Your task to perform on an android device: Go to Android settings Image 0: 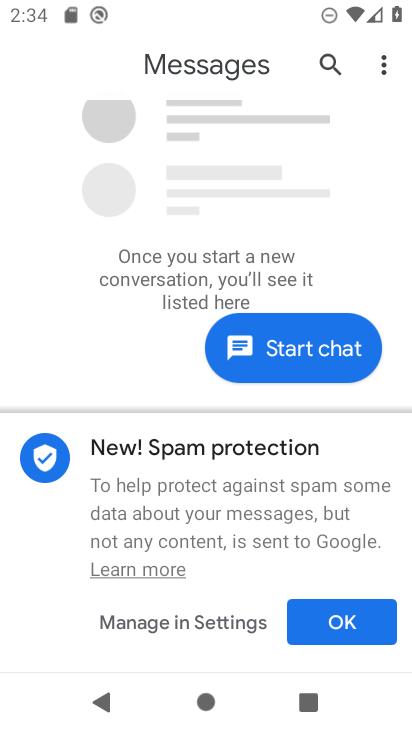
Step 0: click (325, 623)
Your task to perform on an android device: Go to Android settings Image 1: 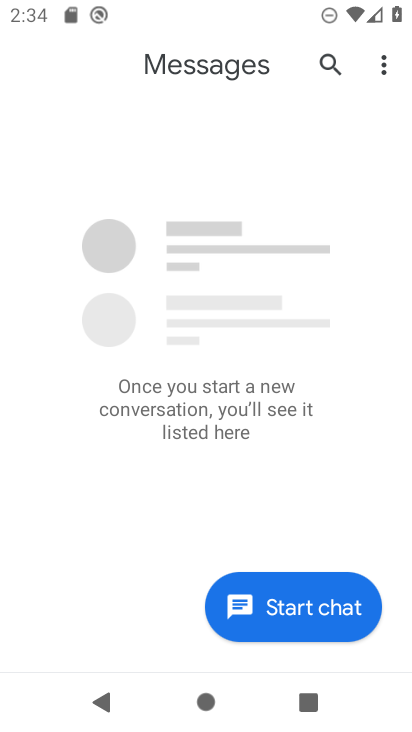
Step 1: press home button
Your task to perform on an android device: Go to Android settings Image 2: 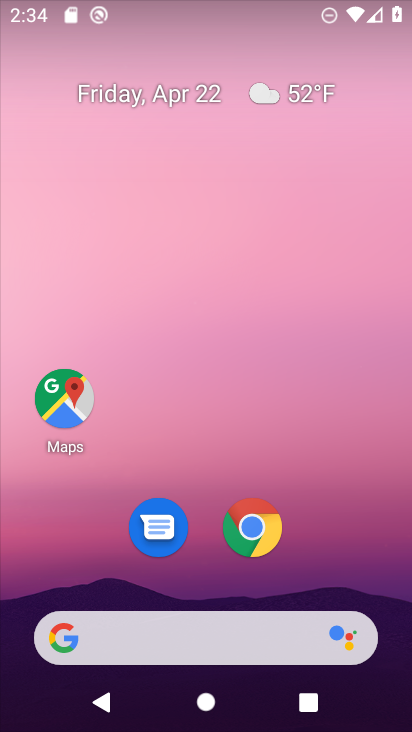
Step 2: drag from (317, 560) to (266, 98)
Your task to perform on an android device: Go to Android settings Image 3: 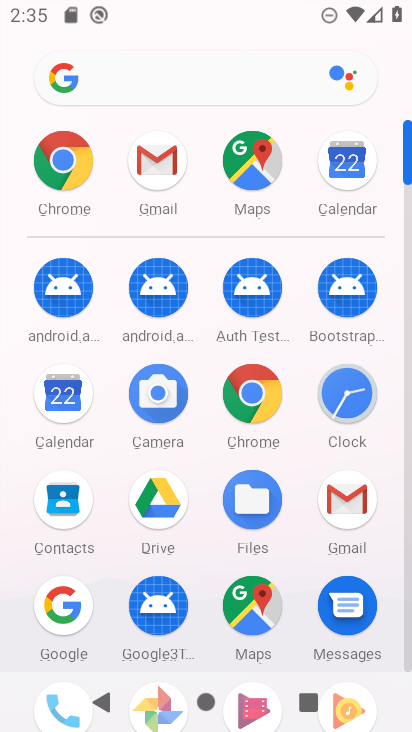
Step 3: click (406, 413)
Your task to perform on an android device: Go to Android settings Image 4: 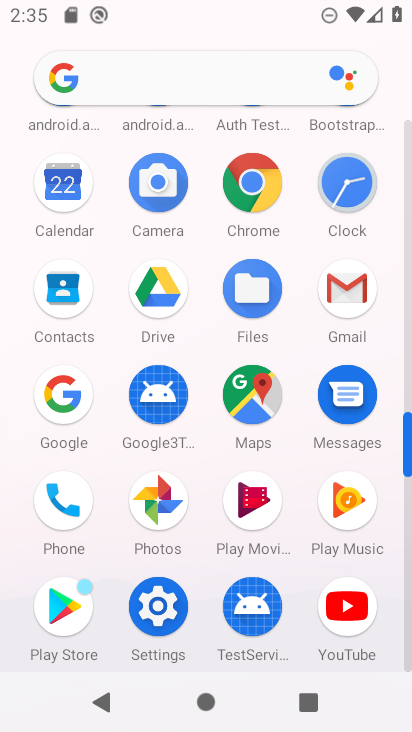
Step 4: click (144, 599)
Your task to perform on an android device: Go to Android settings Image 5: 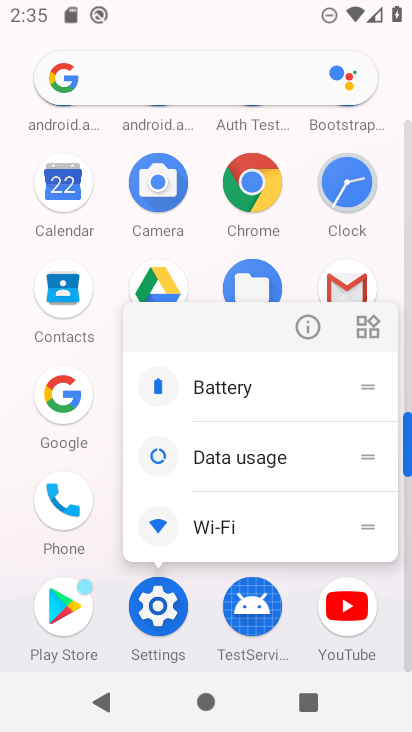
Step 5: click (152, 604)
Your task to perform on an android device: Go to Android settings Image 6: 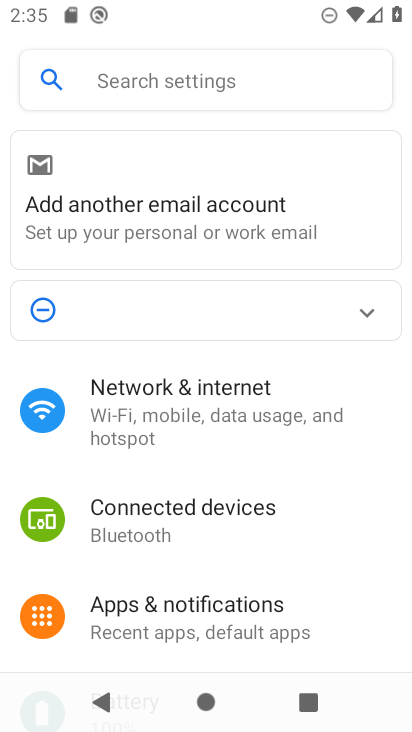
Step 6: drag from (346, 559) to (287, 426)
Your task to perform on an android device: Go to Android settings Image 7: 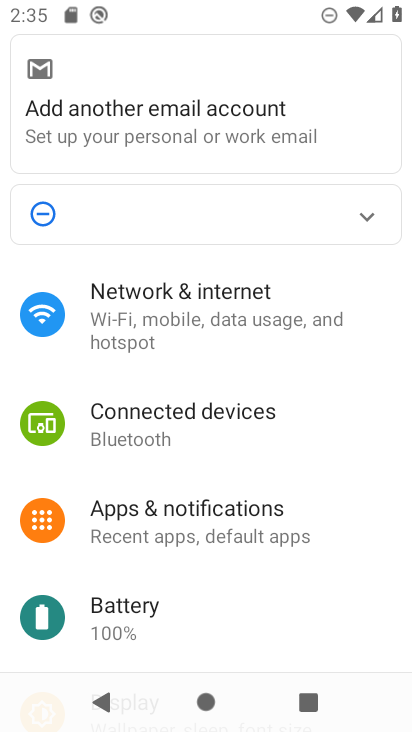
Step 7: drag from (247, 623) to (312, 108)
Your task to perform on an android device: Go to Android settings Image 8: 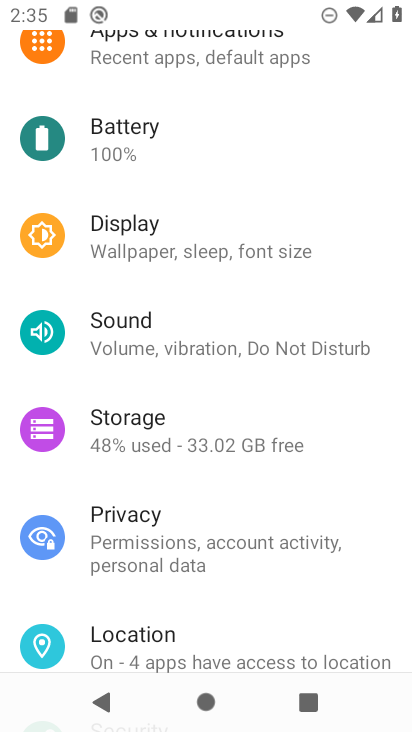
Step 8: drag from (264, 458) to (242, 332)
Your task to perform on an android device: Go to Android settings Image 9: 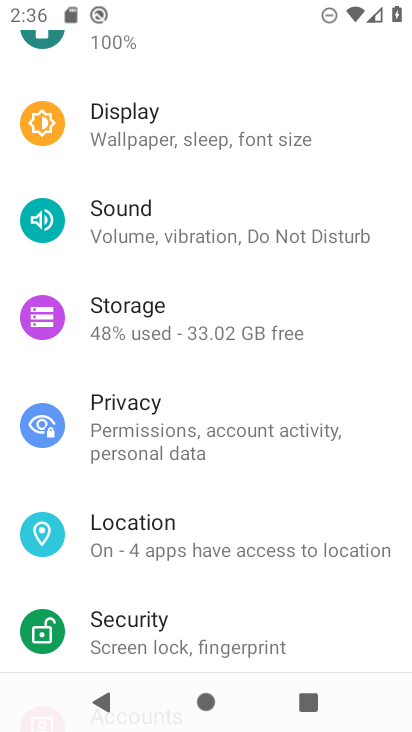
Step 9: drag from (225, 612) to (233, 245)
Your task to perform on an android device: Go to Android settings Image 10: 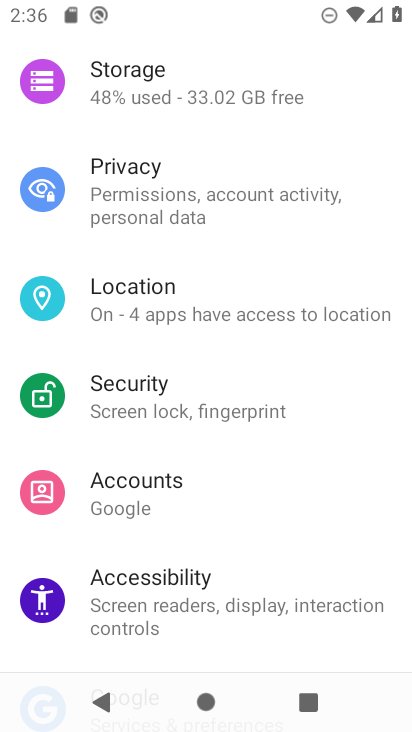
Step 10: drag from (229, 568) to (237, 252)
Your task to perform on an android device: Go to Android settings Image 11: 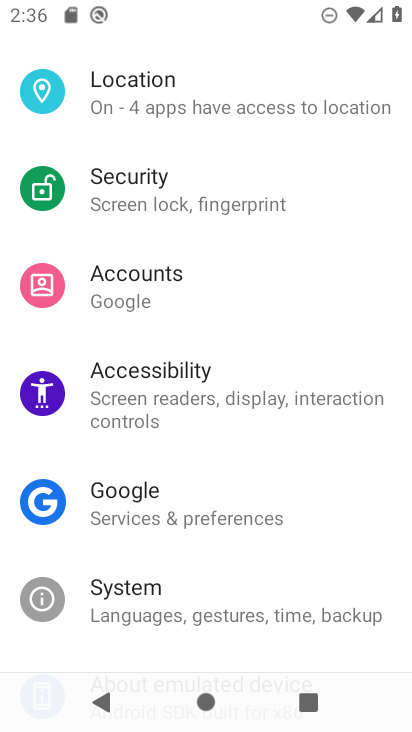
Step 11: drag from (226, 527) to (226, 218)
Your task to perform on an android device: Go to Android settings Image 12: 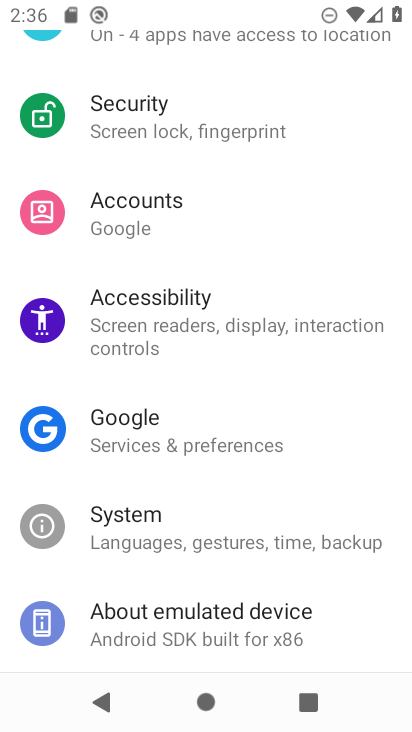
Step 12: click (105, 616)
Your task to perform on an android device: Go to Android settings Image 13: 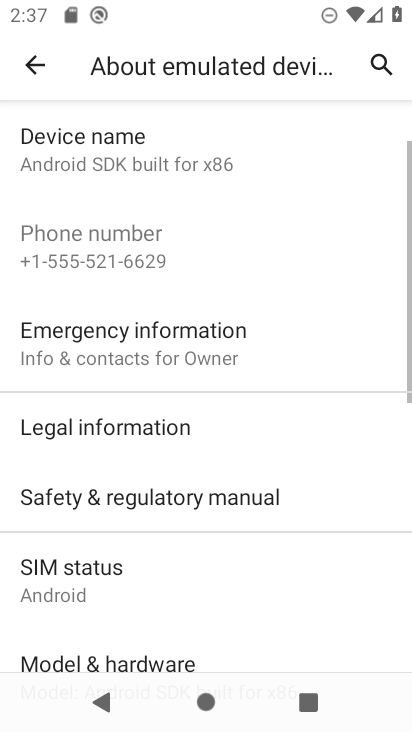
Step 13: drag from (151, 623) to (166, 135)
Your task to perform on an android device: Go to Android settings Image 14: 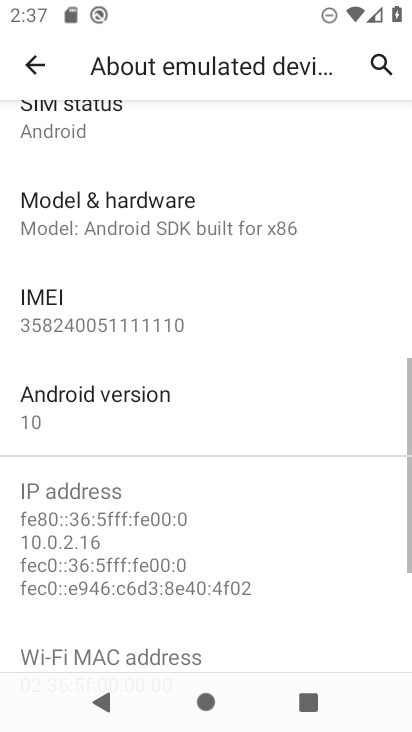
Step 14: click (191, 425)
Your task to perform on an android device: Go to Android settings Image 15: 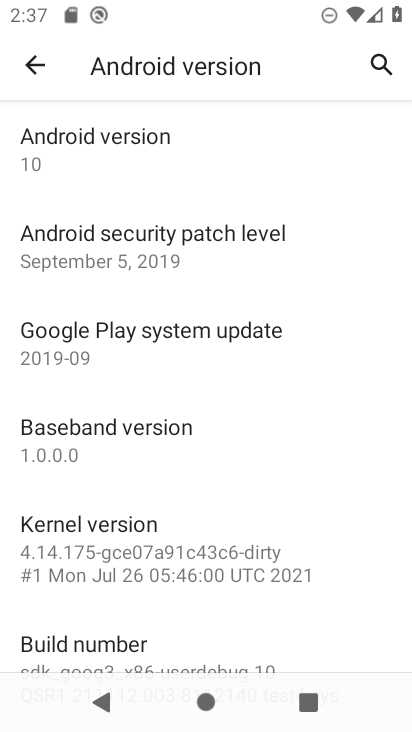
Step 15: click (69, 188)
Your task to perform on an android device: Go to Android settings Image 16: 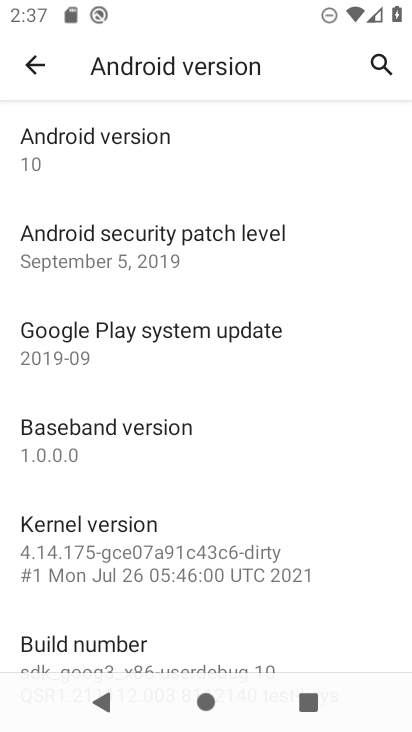
Step 16: task complete